Your task to perform on an android device: uninstall "Reddit" Image 0: 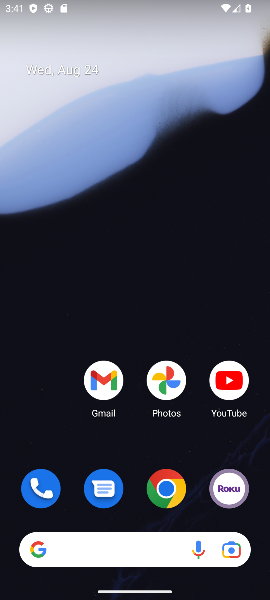
Step 0: drag from (142, 519) to (103, 4)
Your task to perform on an android device: uninstall "Reddit" Image 1: 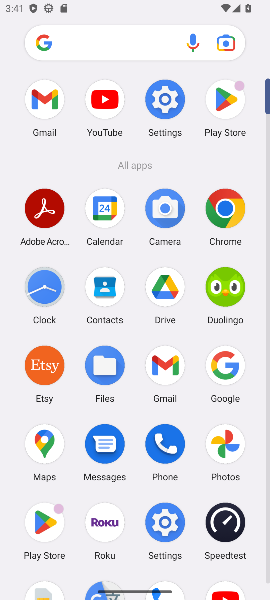
Step 1: click (212, 100)
Your task to perform on an android device: uninstall "Reddit" Image 2: 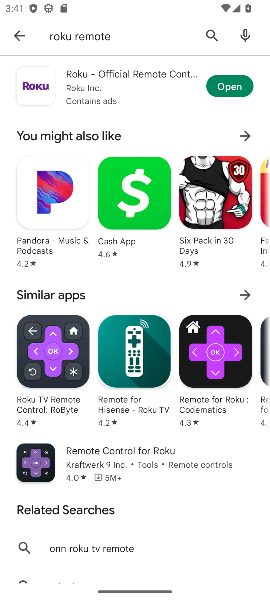
Step 2: click (200, 38)
Your task to perform on an android device: uninstall "Reddit" Image 3: 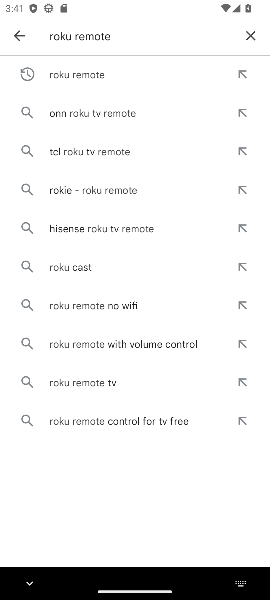
Step 3: click (246, 37)
Your task to perform on an android device: uninstall "Reddit" Image 4: 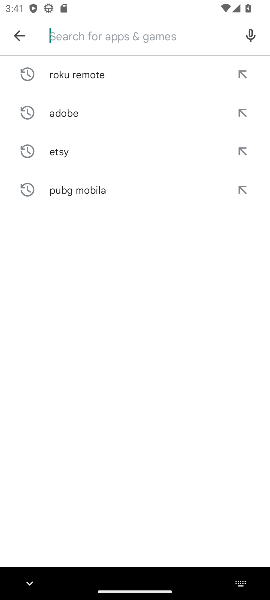
Step 4: type "reddit"
Your task to perform on an android device: uninstall "Reddit" Image 5: 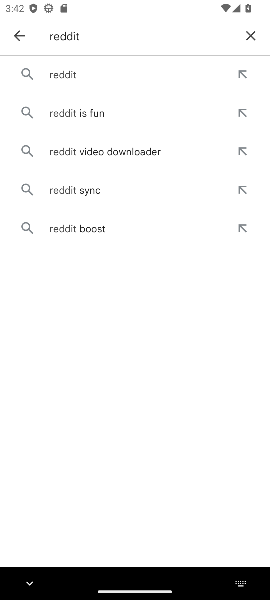
Step 5: click (114, 76)
Your task to perform on an android device: uninstall "Reddit" Image 6: 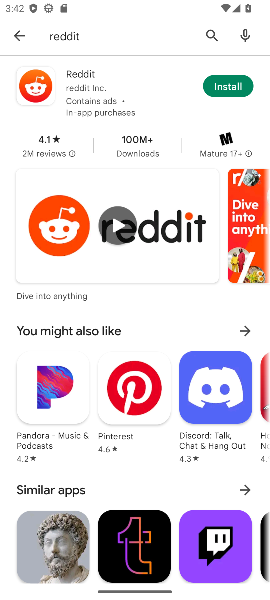
Step 6: click (237, 87)
Your task to perform on an android device: uninstall "Reddit" Image 7: 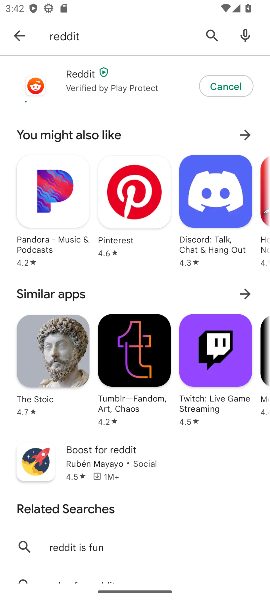
Step 7: task complete